Your task to perform on an android device: all mails in gmail Image 0: 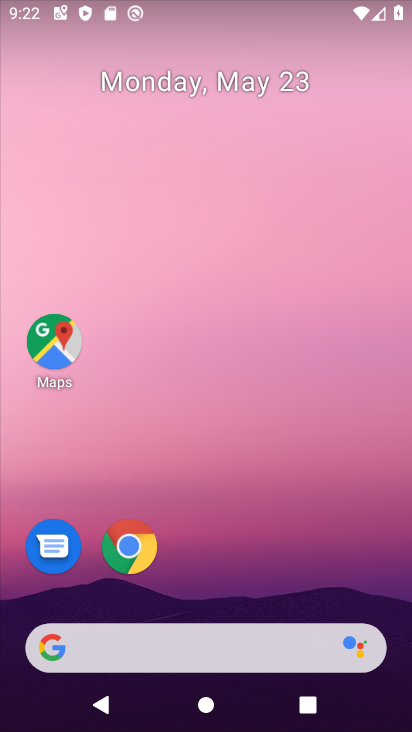
Step 0: drag from (395, 621) to (382, 171)
Your task to perform on an android device: all mails in gmail Image 1: 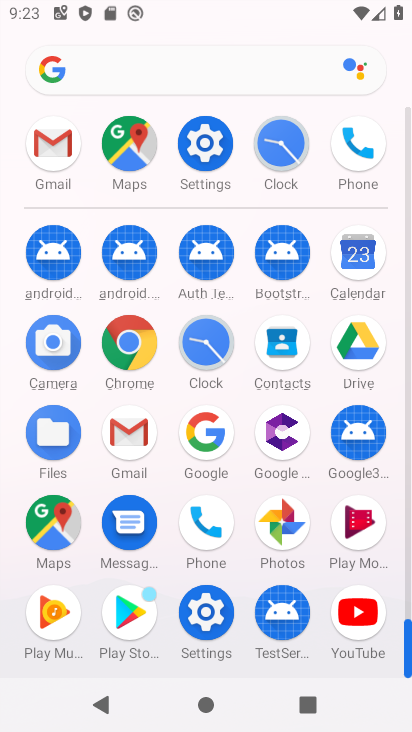
Step 1: click (129, 429)
Your task to perform on an android device: all mails in gmail Image 2: 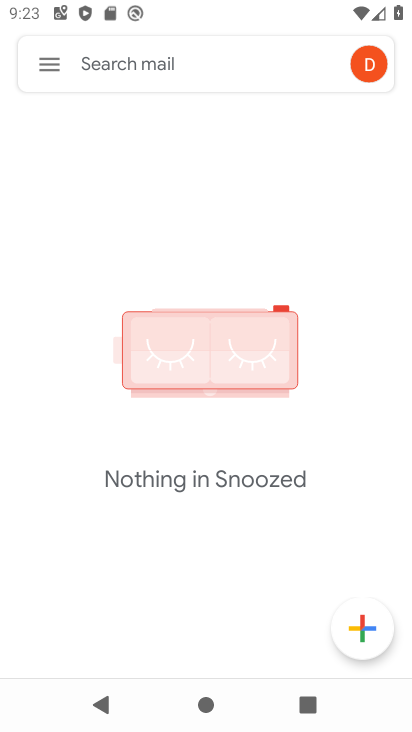
Step 2: click (47, 68)
Your task to perform on an android device: all mails in gmail Image 3: 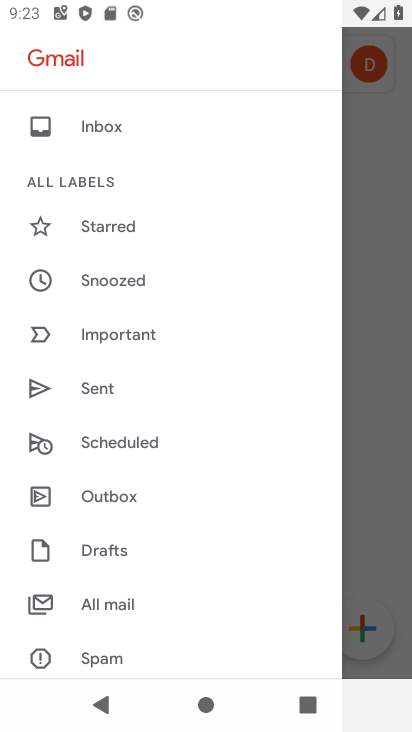
Step 3: click (107, 599)
Your task to perform on an android device: all mails in gmail Image 4: 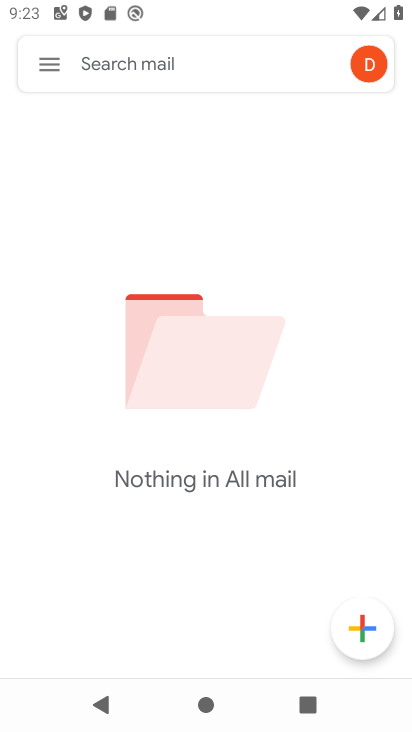
Step 4: task complete